Your task to perform on an android device: change timer sound Image 0: 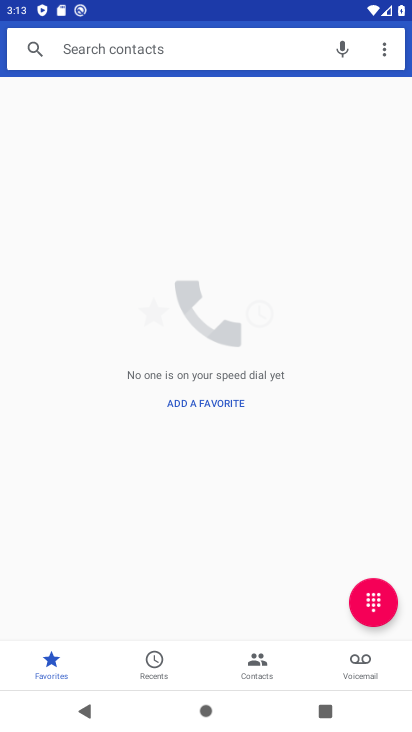
Step 0: press home button
Your task to perform on an android device: change timer sound Image 1: 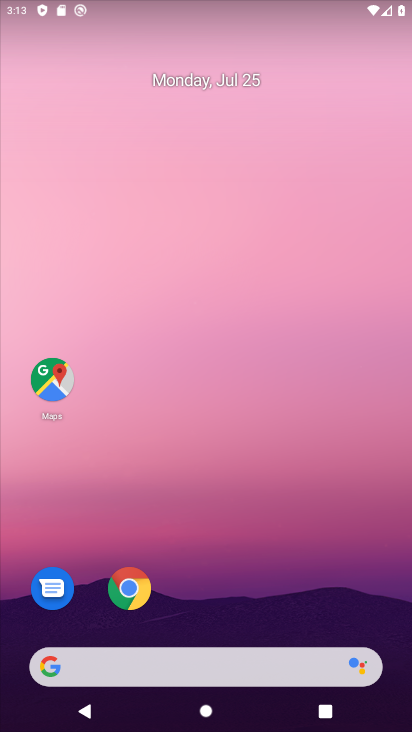
Step 1: drag from (289, 613) to (242, 174)
Your task to perform on an android device: change timer sound Image 2: 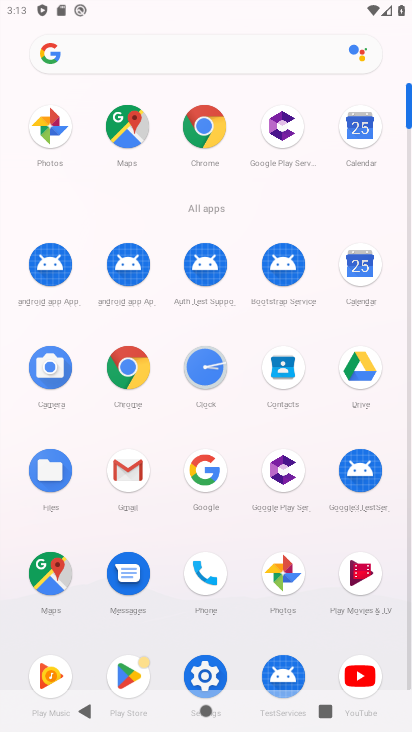
Step 2: click (209, 671)
Your task to perform on an android device: change timer sound Image 3: 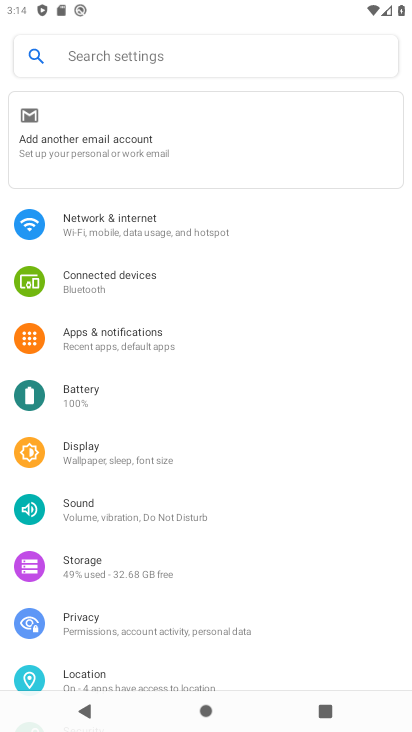
Step 3: click (175, 506)
Your task to perform on an android device: change timer sound Image 4: 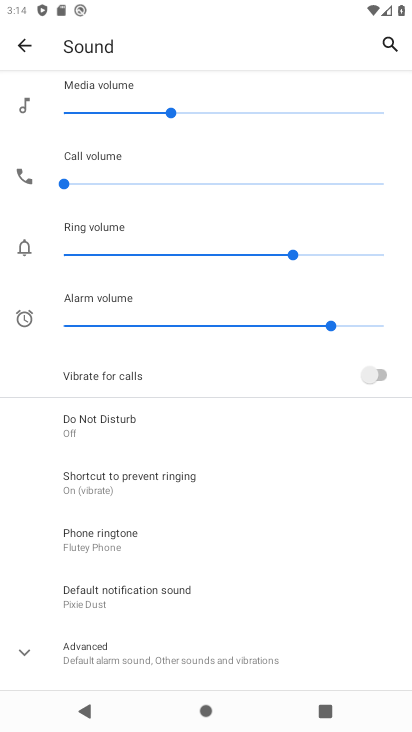
Step 4: drag from (213, 535) to (142, 237)
Your task to perform on an android device: change timer sound Image 5: 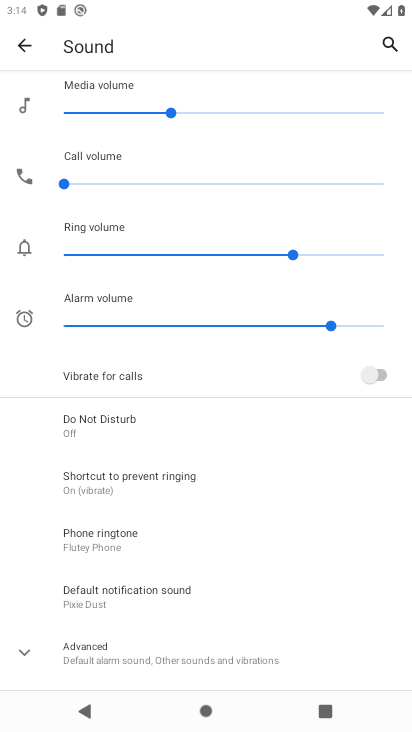
Step 5: click (218, 651)
Your task to perform on an android device: change timer sound Image 6: 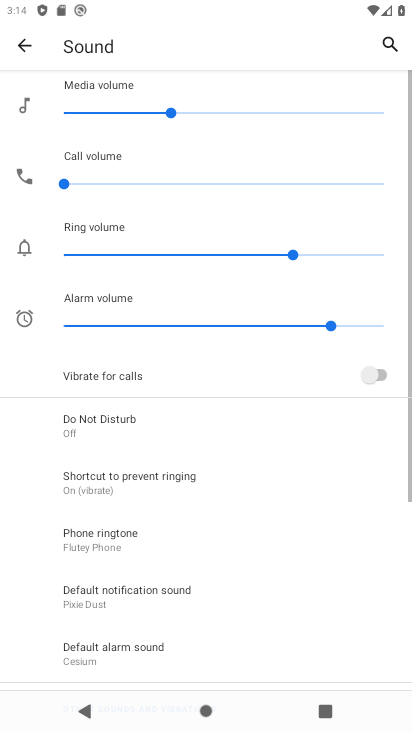
Step 6: drag from (218, 651) to (127, 365)
Your task to perform on an android device: change timer sound Image 7: 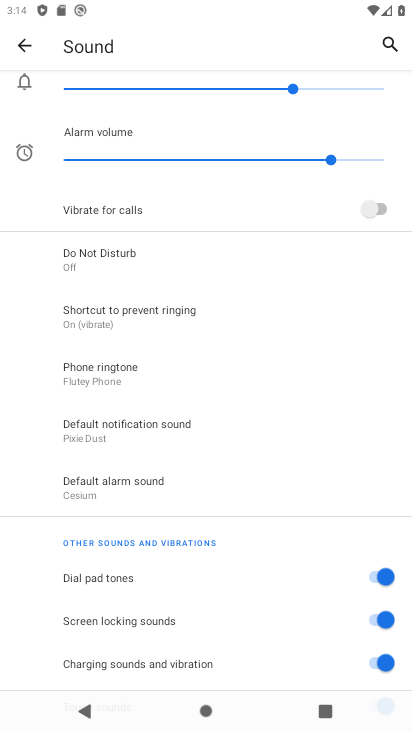
Step 7: drag from (190, 514) to (143, 104)
Your task to perform on an android device: change timer sound Image 8: 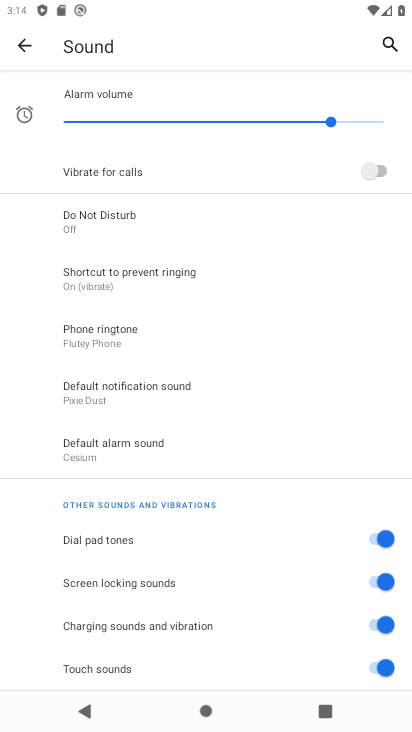
Step 8: press home button
Your task to perform on an android device: change timer sound Image 9: 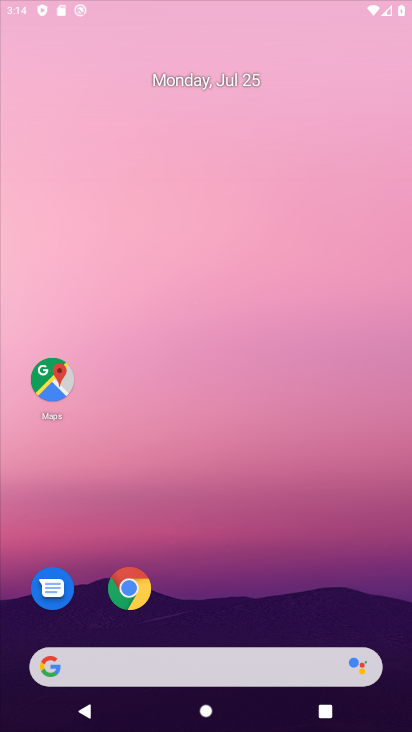
Step 9: drag from (277, 518) to (195, 3)
Your task to perform on an android device: change timer sound Image 10: 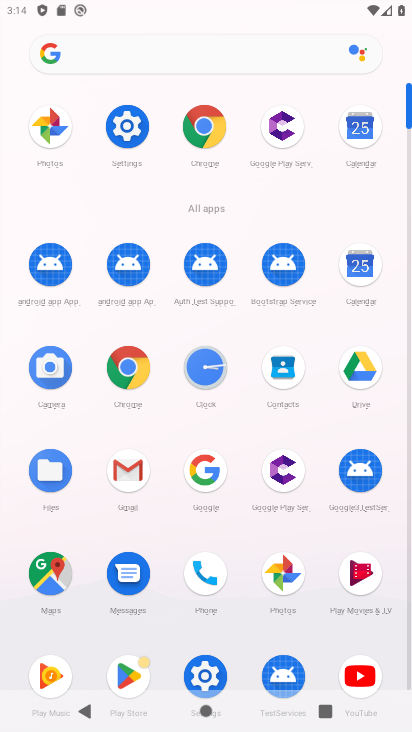
Step 10: click (207, 373)
Your task to perform on an android device: change timer sound Image 11: 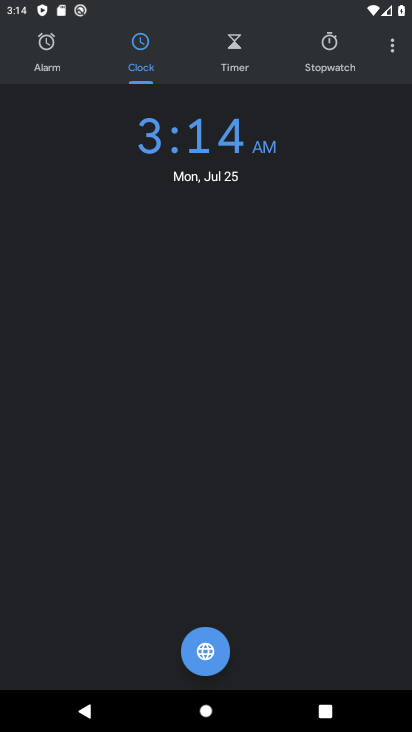
Step 11: click (394, 44)
Your task to perform on an android device: change timer sound Image 12: 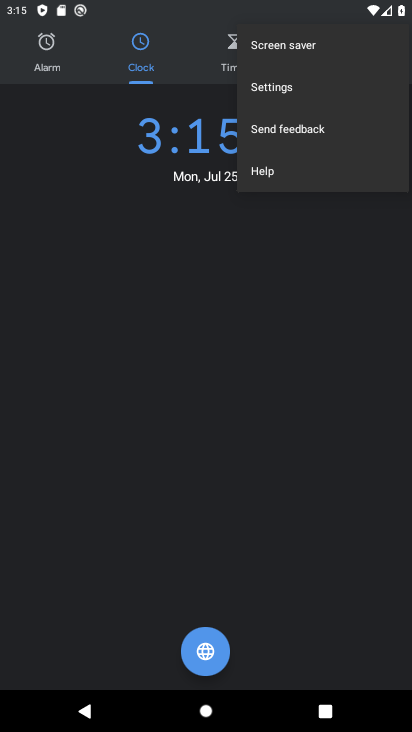
Step 12: click (292, 93)
Your task to perform on an android device: change timer sound Image 13: 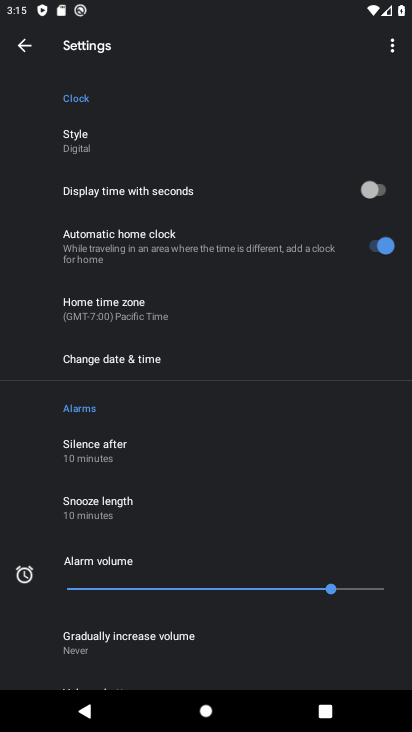
Step 13: drag from (177, 474) to (134, 277)
Your task to perform on an android device: change timer sound Image 14: 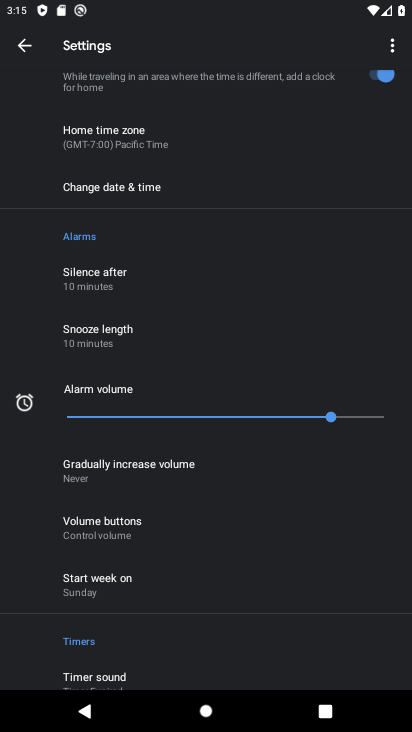
Step 14: click (137, 675)
Your task to perform on an android device: change timer sound Image 15: 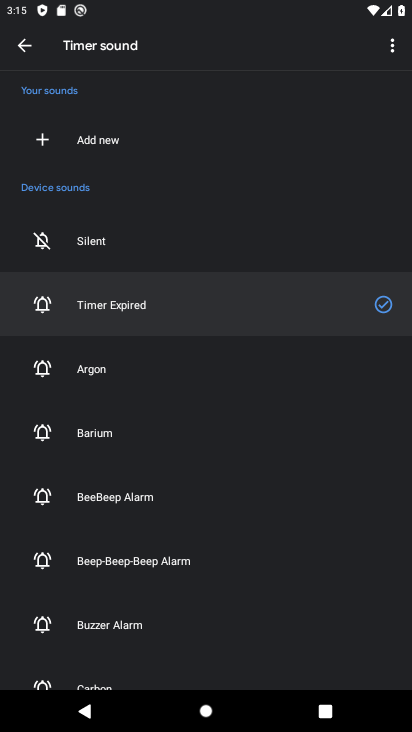
Step 15: click (109, 568)
Your task to perform on an android device: change timer sound Image 16: 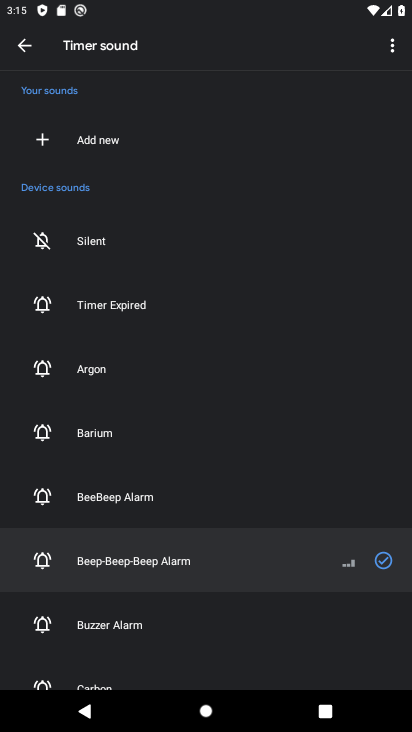
Step 16: task complete